Your task to perform on an android device: Open calendar and show me the fourth week of next month Image 0: 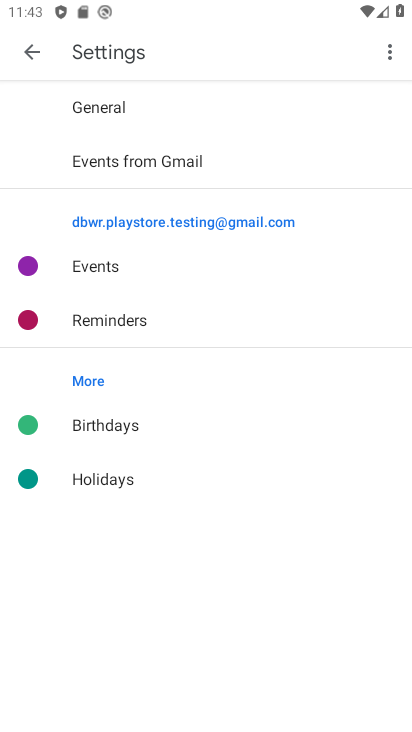
Step 0: press back button
Your task to perform on an android device: Open calendar and show me the fourth week of next month Image 1: 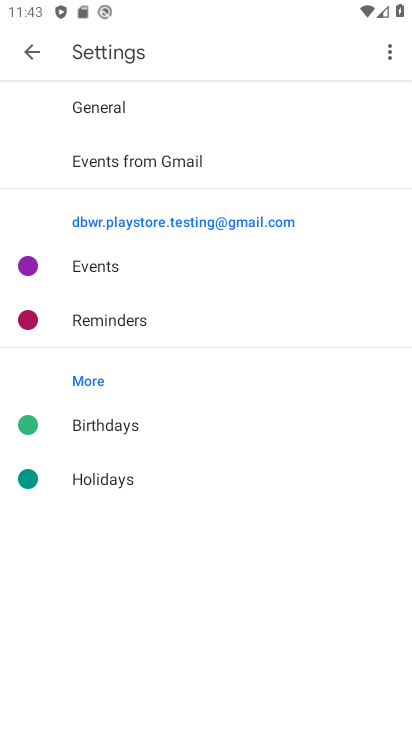
Step 1: press back button
Your task to perform on an android device: Open calendar and show me the fourth week of next month Image 2: 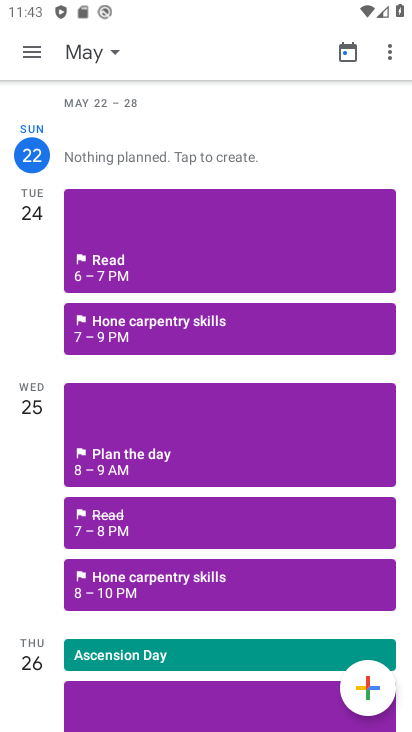
Step 2: press back button
Your task to perform on an android device: Open calendar and show me the fourth week of next month Image 3: 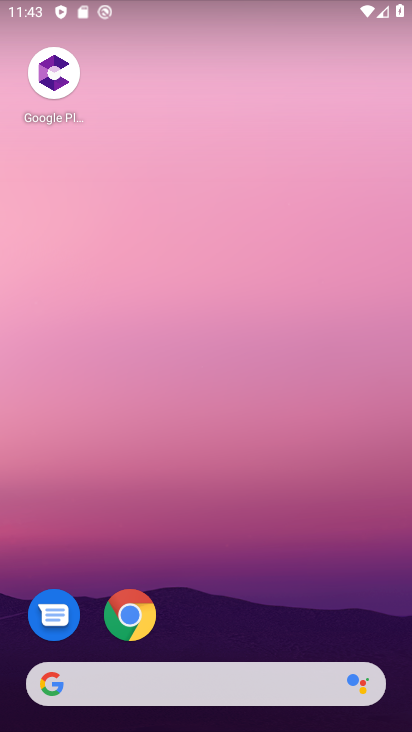
Step 3: drag from (269, 579) to (372, 66)
Your task to perform on an android device: Open calendar and show me the fourth week of next month Image 4: 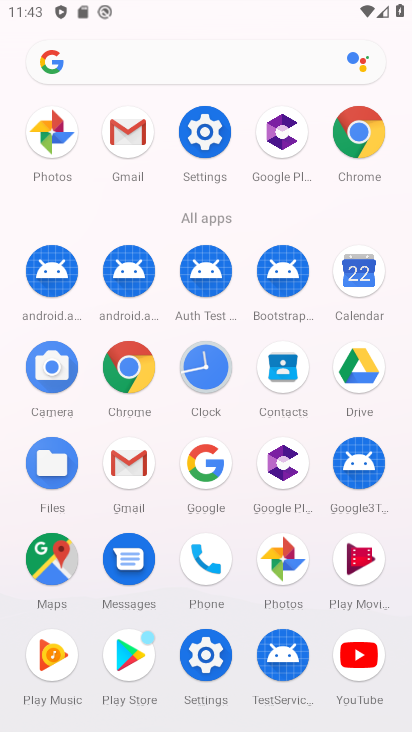
Step 4: click (364, 261)
Your task to perform on an android device: Open calendar and show me the fourth week of next month Image 5: 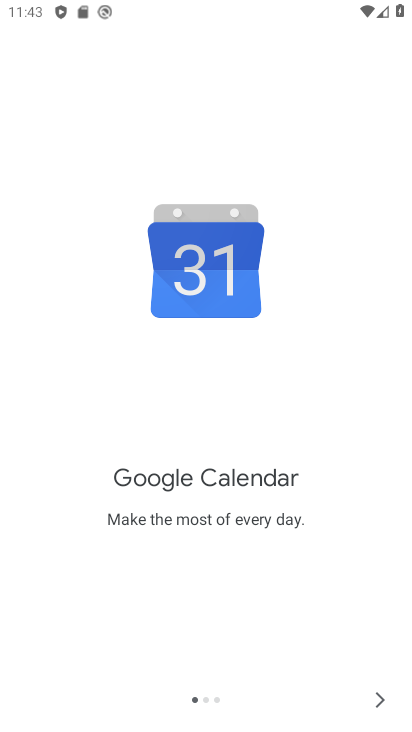
Step 5: click (382, 680)
Your task to perform on an android device: Open calendar and show me the fourth week of next month Image 6: 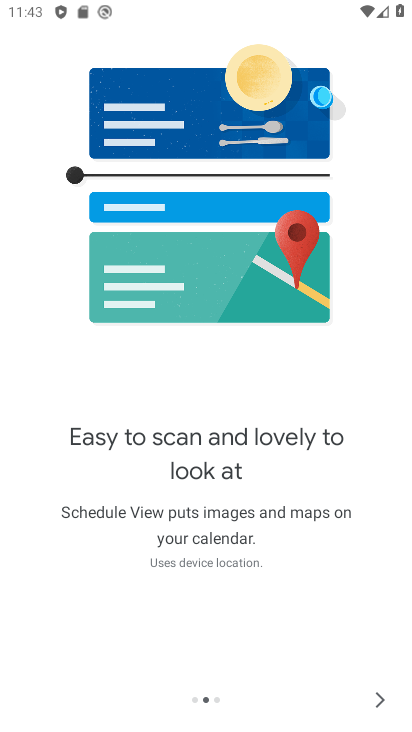
Step 6: click (382, 680)
Your task to perform on an android device: Open calendar and show me the fourth week of next month Image 7: 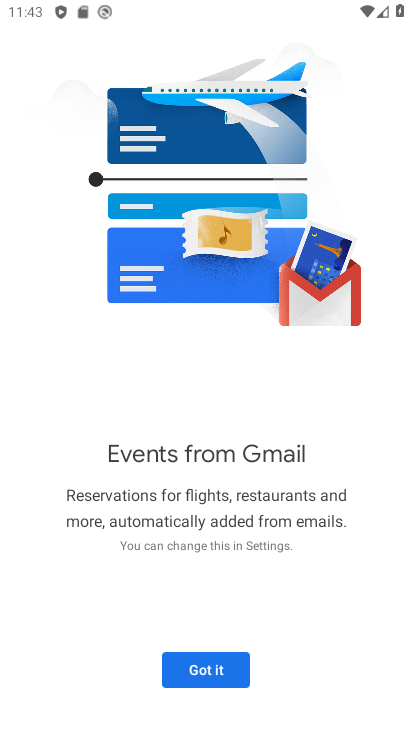
Step 7: click (221, 671)
Your task to perform on an android device: Open calendar and show me the fourth week of next month Image 8: 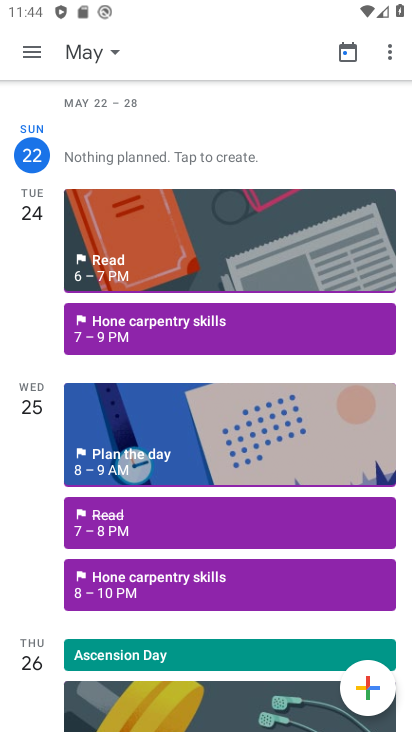
Step 8: click (103, 51)
Your task to perform on an android device: Open calendar and show me the fourth week of next month Image 9: 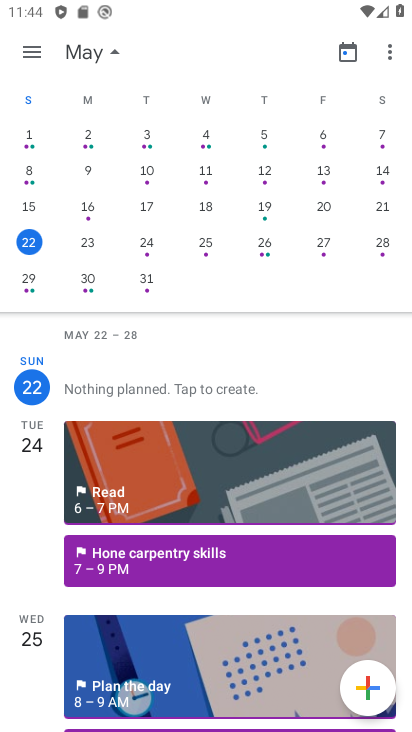
Step 9: drag from (378, 187) to (29, 155)
Your task to perform on an android device: Open calendar and show me the fourth week of next month Image 10: 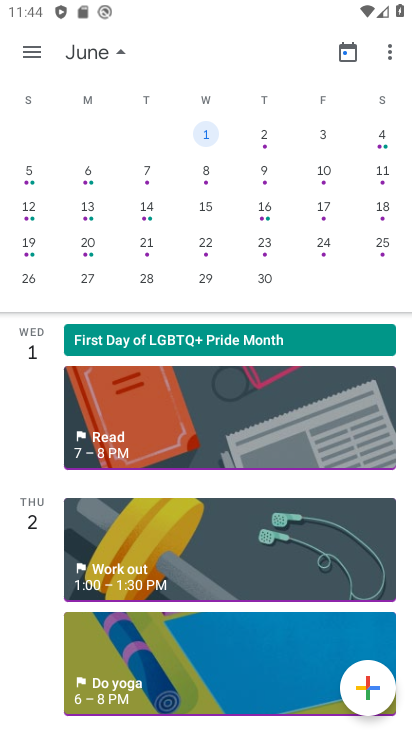
Step 10: click (80, 242)
Your task to perform on an android device: Open calendar and show me the fourth week of next month Image 11: 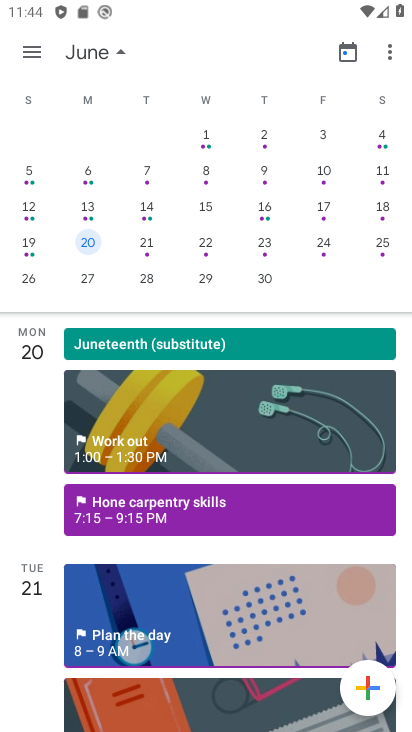
Step 11: task complete